Your task to perform on an android device: Clear the cart on amazon.com. Add bose soundsport free to the cart on amazon.com, then select checkout. Image 0: 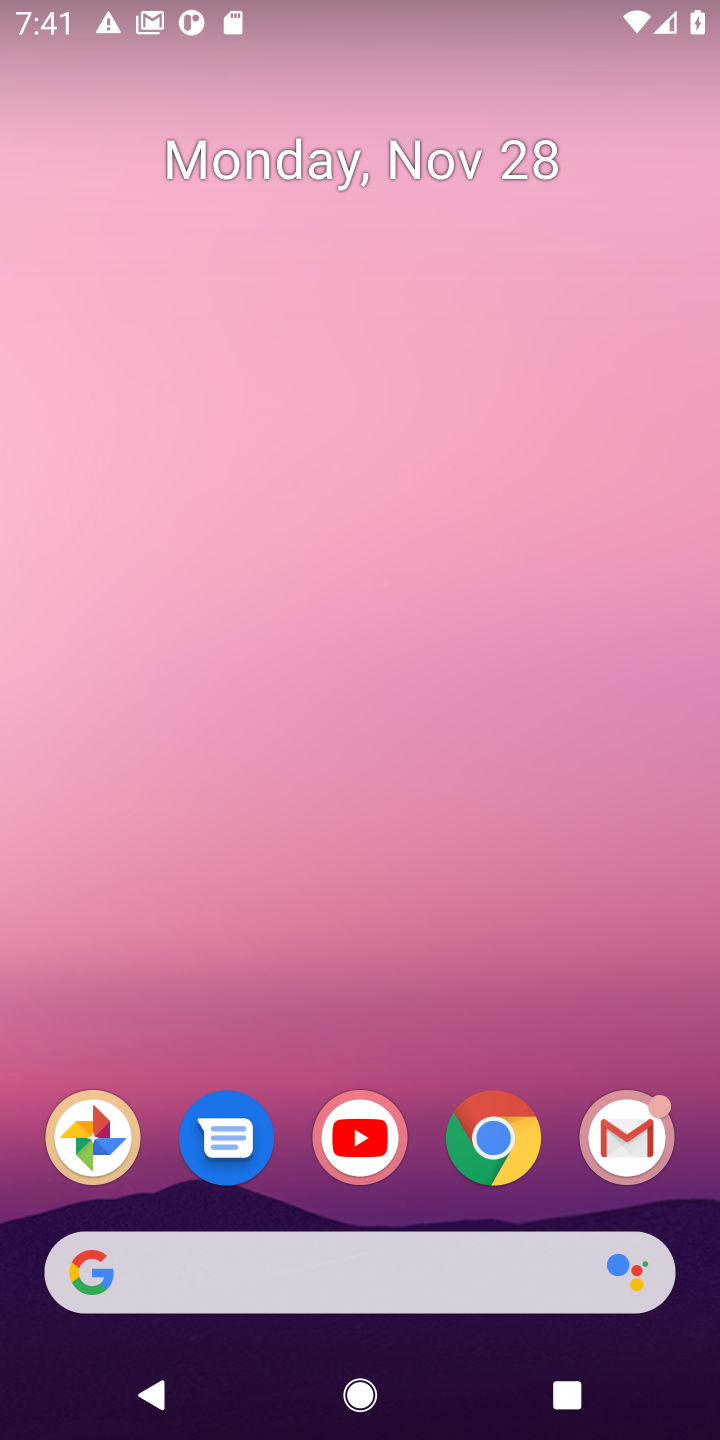
Step 0: click (494, 1148)
Your task to perform on an android device: Clear the cart on amazon.com. Add bose soundsport free to the cart on amazon.com, then select checkout. Image 1: 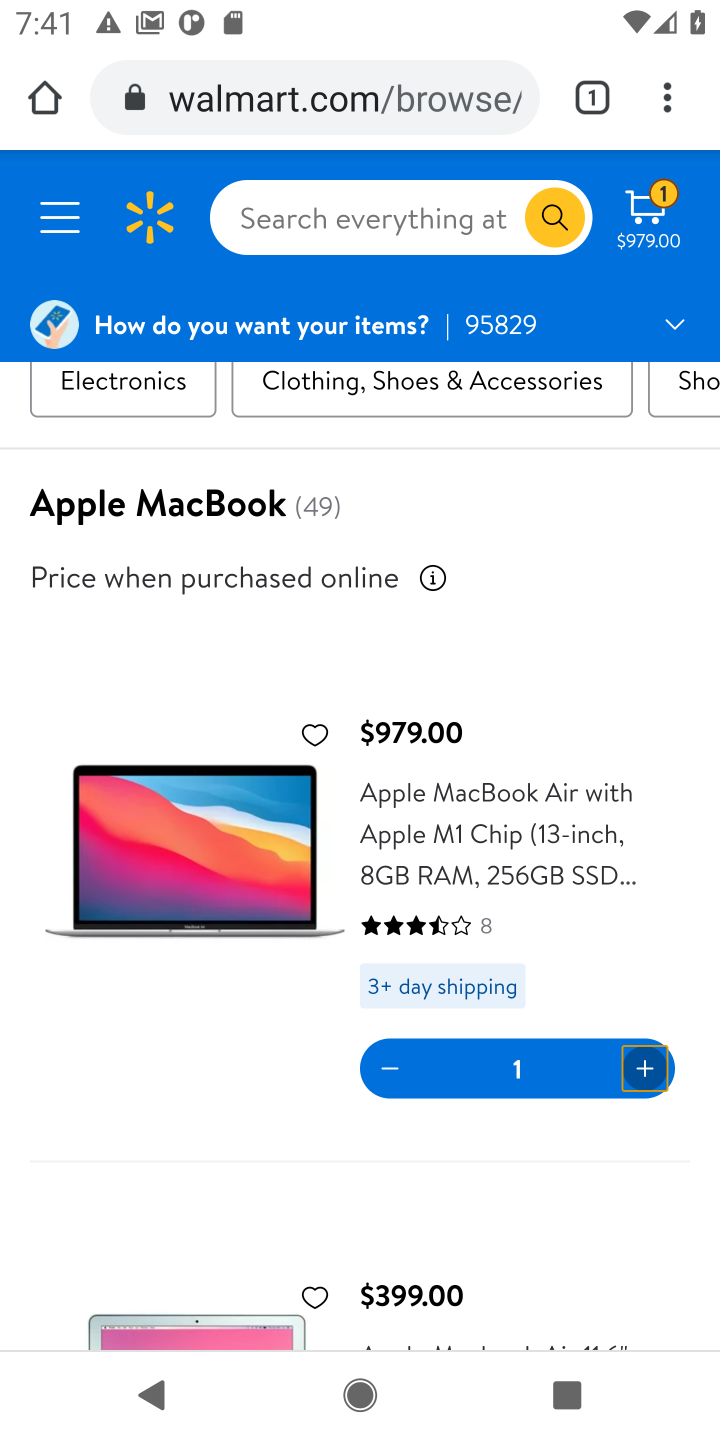
Step 1: click (317, 105)
Your task to perform on an android device: Clear the cart on amazon.com. Add bose soundsport free to the cart on amazon.com, then select checkout. Image 2: 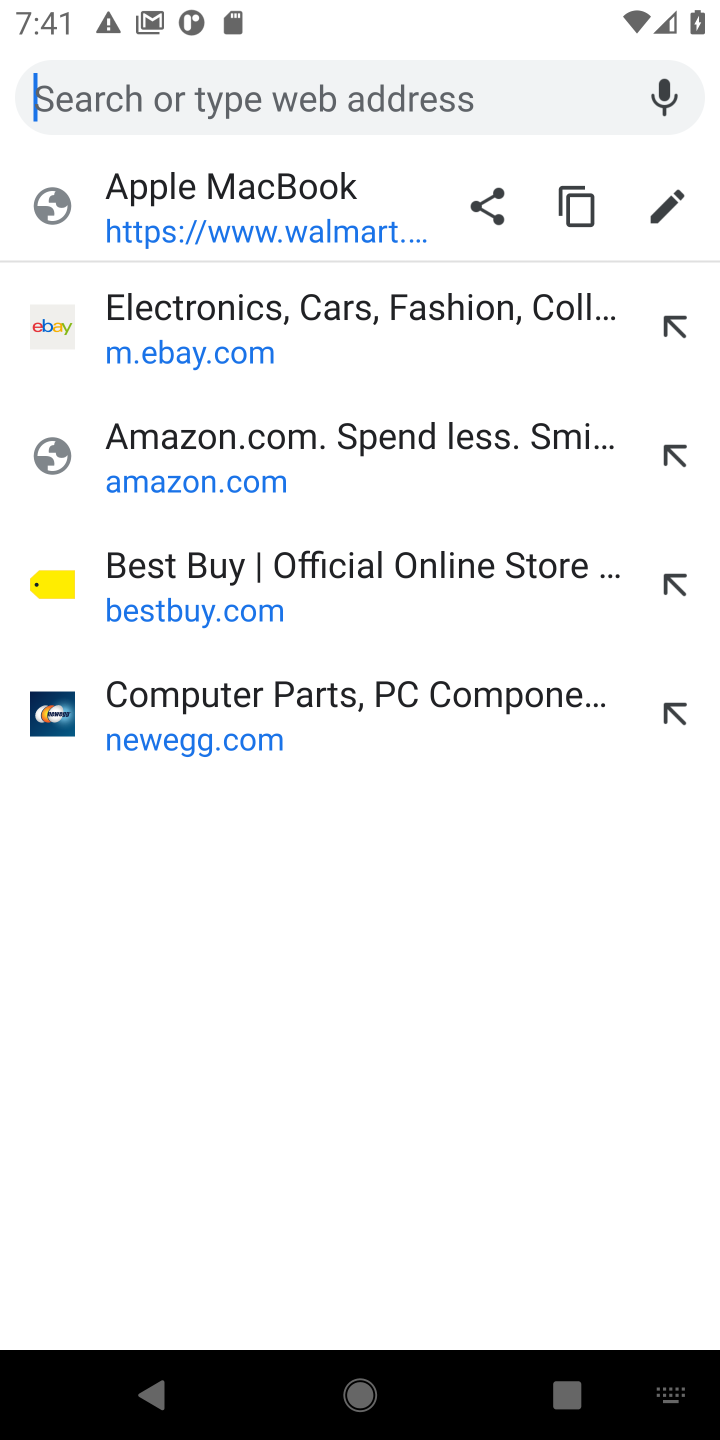
Step 2: click (173, 469)
Your task to perform on an android device: Clear the cart on amazon.com. Add bose soundsport free to the cart on amazon.com, then select checkout. Image 3: 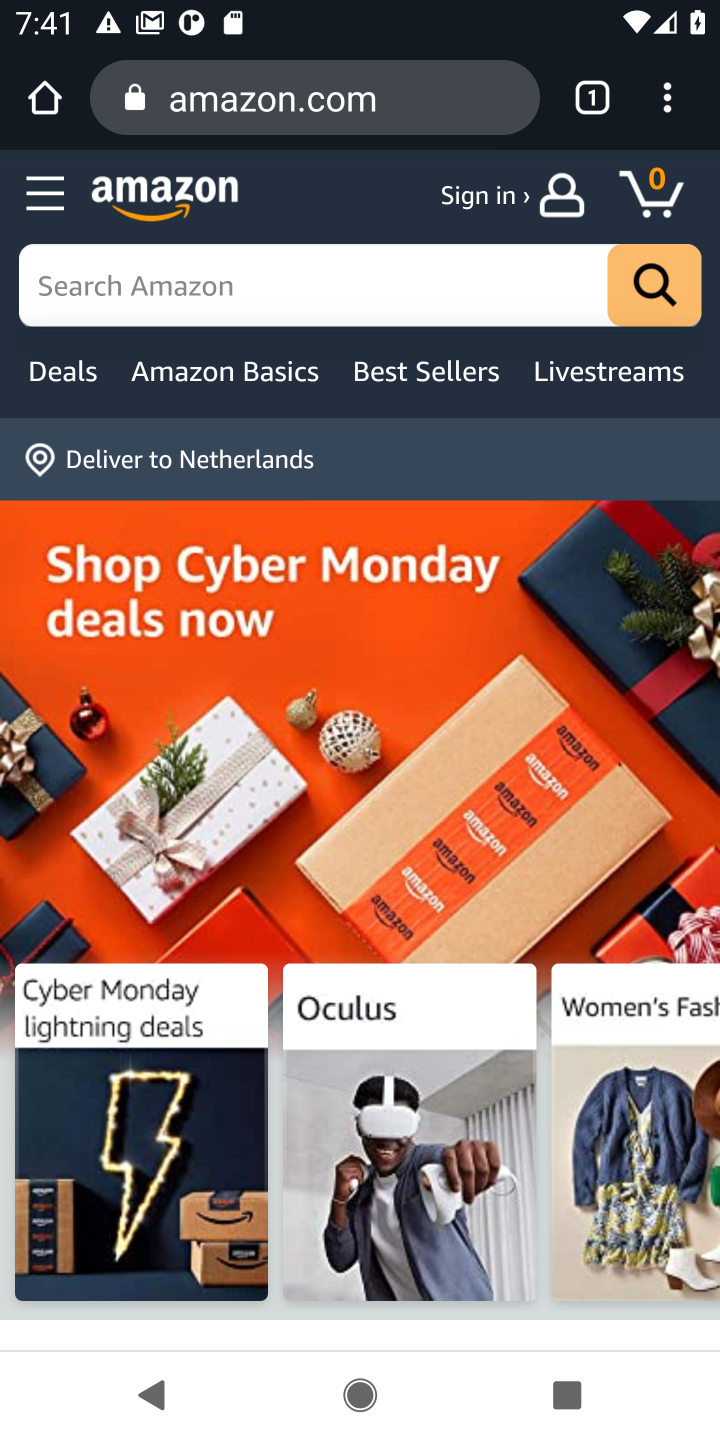
Step 3: click (648, 193)
Your task to perform on an android device: Clear the cart on amazon.com. Add bose soundsport free to the cart on amazon.com, then select checkout. Image 4: 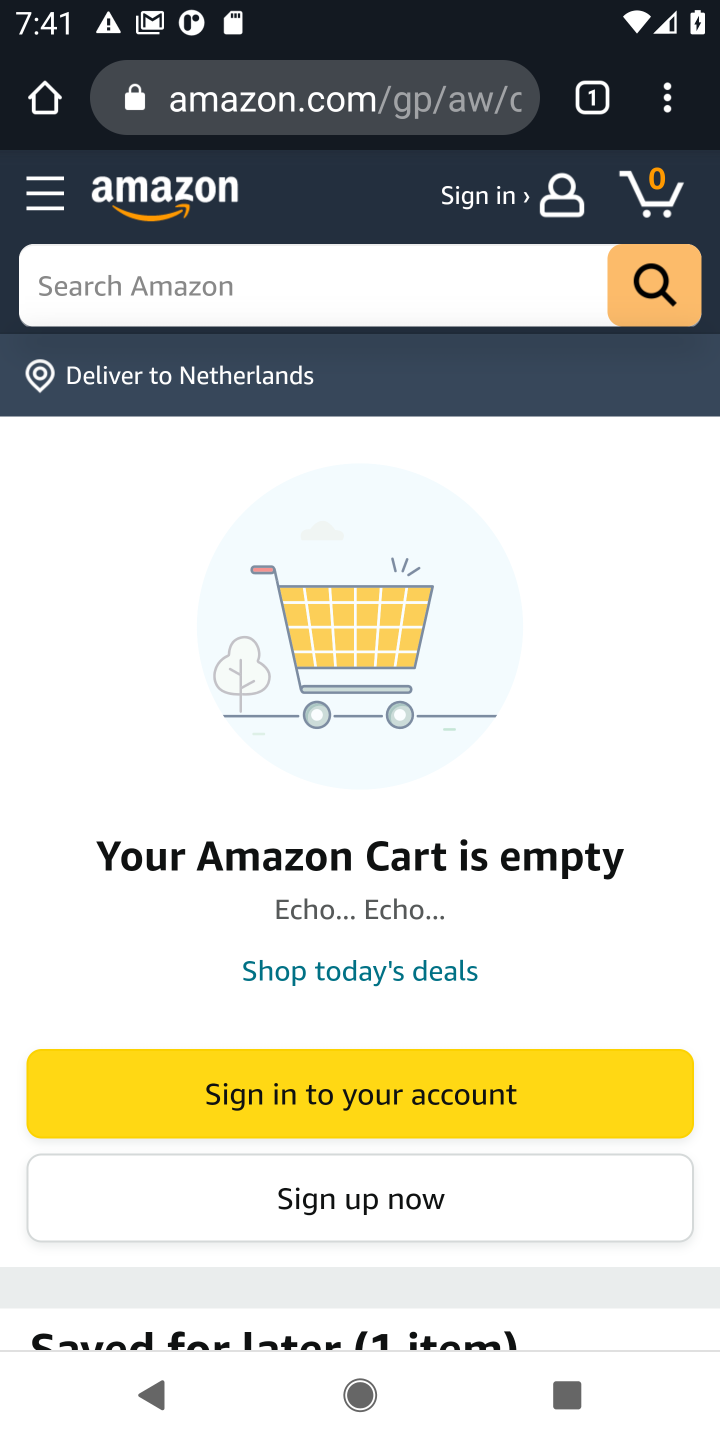
Step 4: click (111, 285)
Your task to perform on an android device: Clear the cart on amazon.com. Add bose soundsport free to the cart on amazon.com, then select checkout. Image 5: 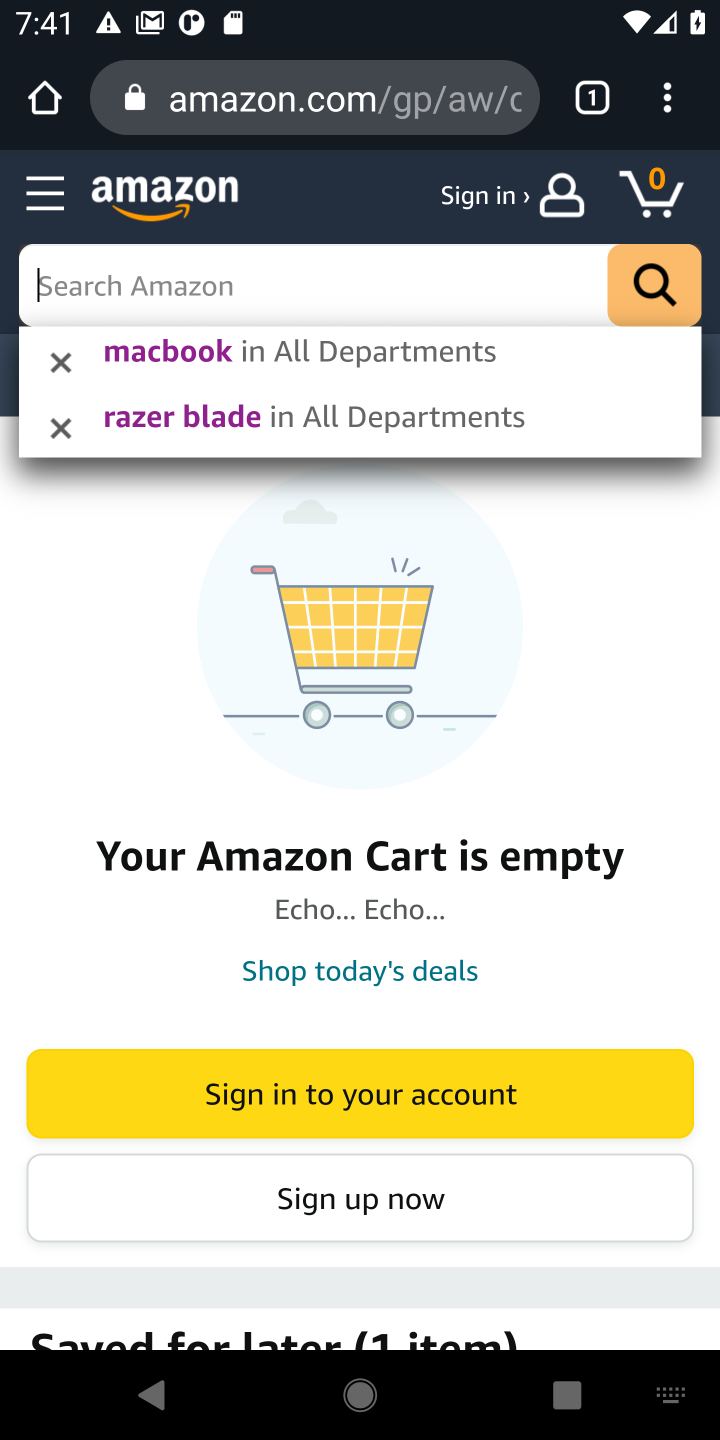
Step 5: type "bose soundsport free"
Your task to perform on an android device: Clear the cart on amazon.com. Add bose soundsport free to the cart on amazon.com, then select checkout. Image 6: 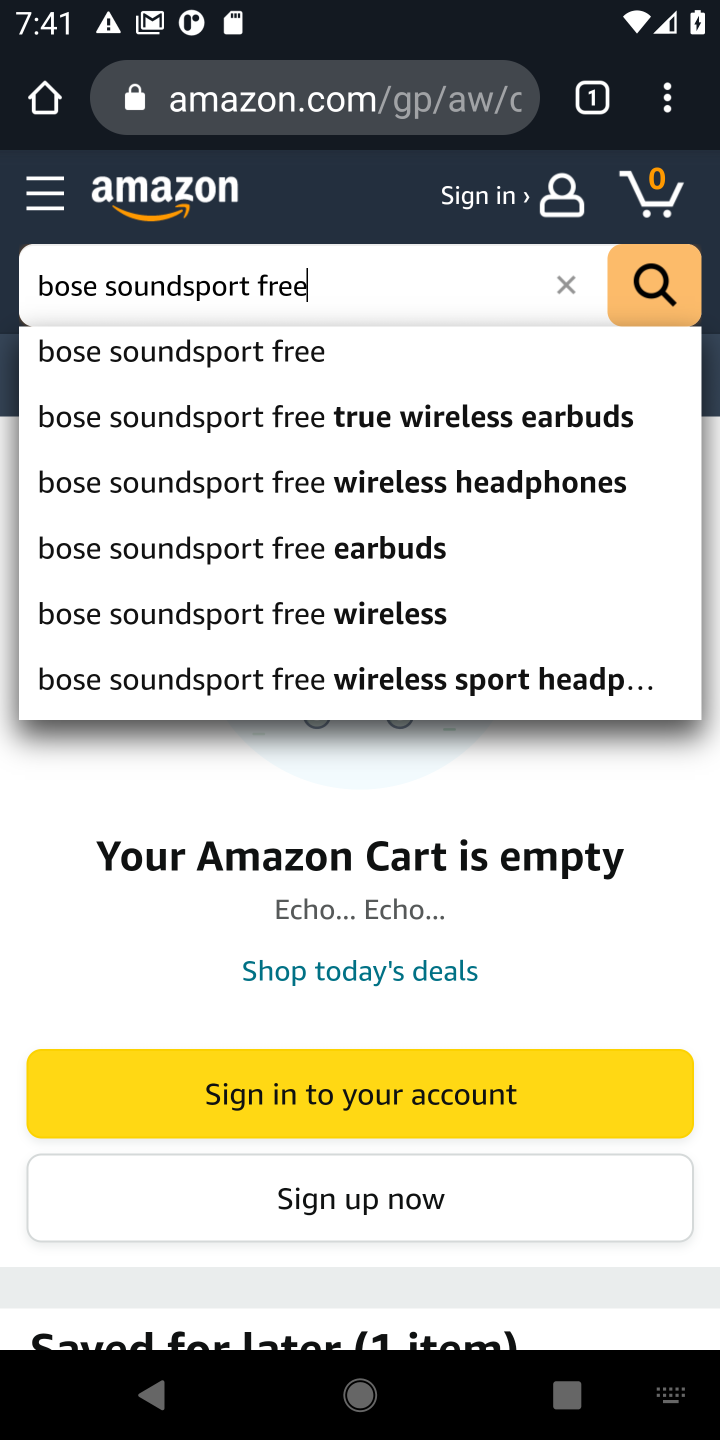
Step 6: click (190, 362)
Your task to perform on an android device: Clear the cart on amazon.com. Add bose soundsport free to the cart on amazon.com, then select checkout. Image 7: 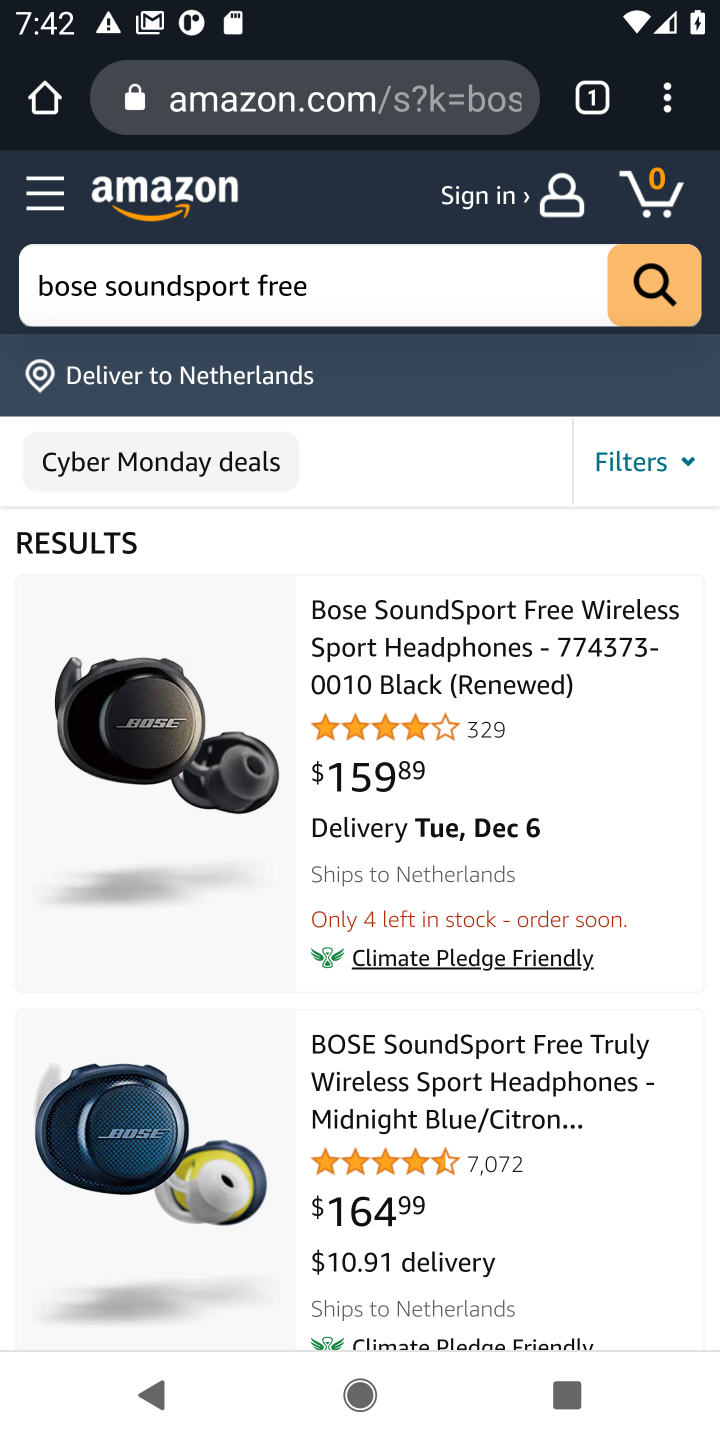
Step 7: click (429, 669)
Your task to perform on an android device: Clear the cart on amazon.com. Add bose soundsport free to the cart on amazon.com, then select checkout. Image 8: 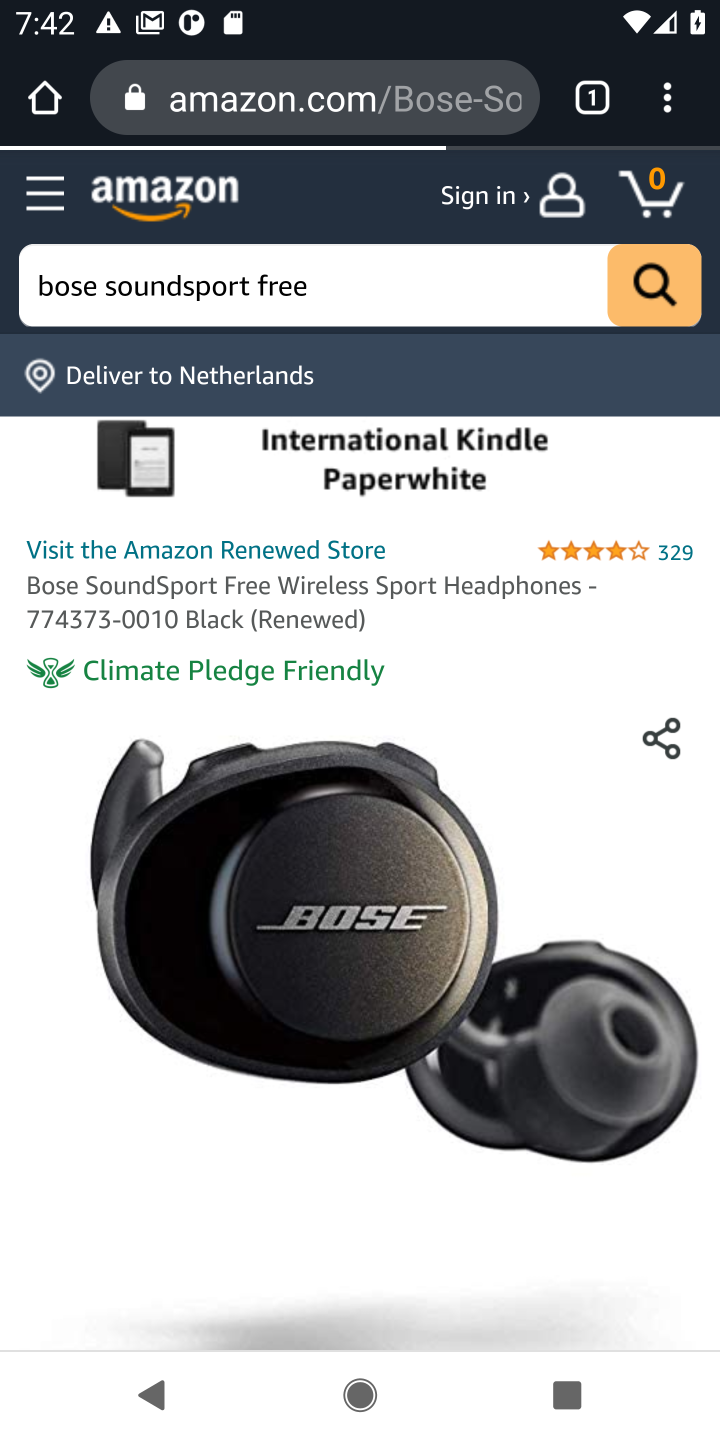
Step 8: drag from (344, 1074) to (345, 550)
Your task to perform on an android device: Clear the cart on amazon.com. Add bose soundsport free to the cart on amazon.com, then select checkout. Image 9: 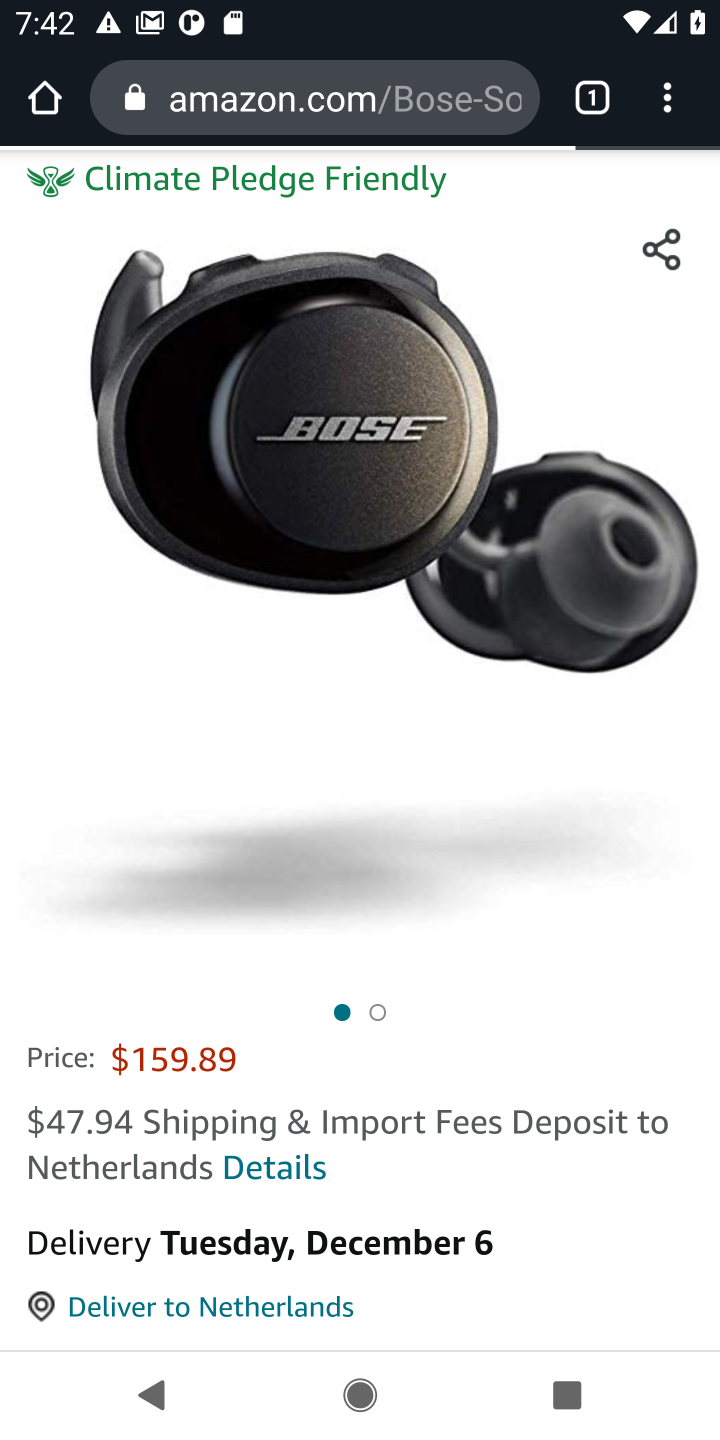
Step 9: drag from (347, 1129) to (374, 623)
Your task to perform on an android device: Clear the cart on amazon.com. Add bose soundsport free to the cart on amazon.com, then select checkout. Image 10: 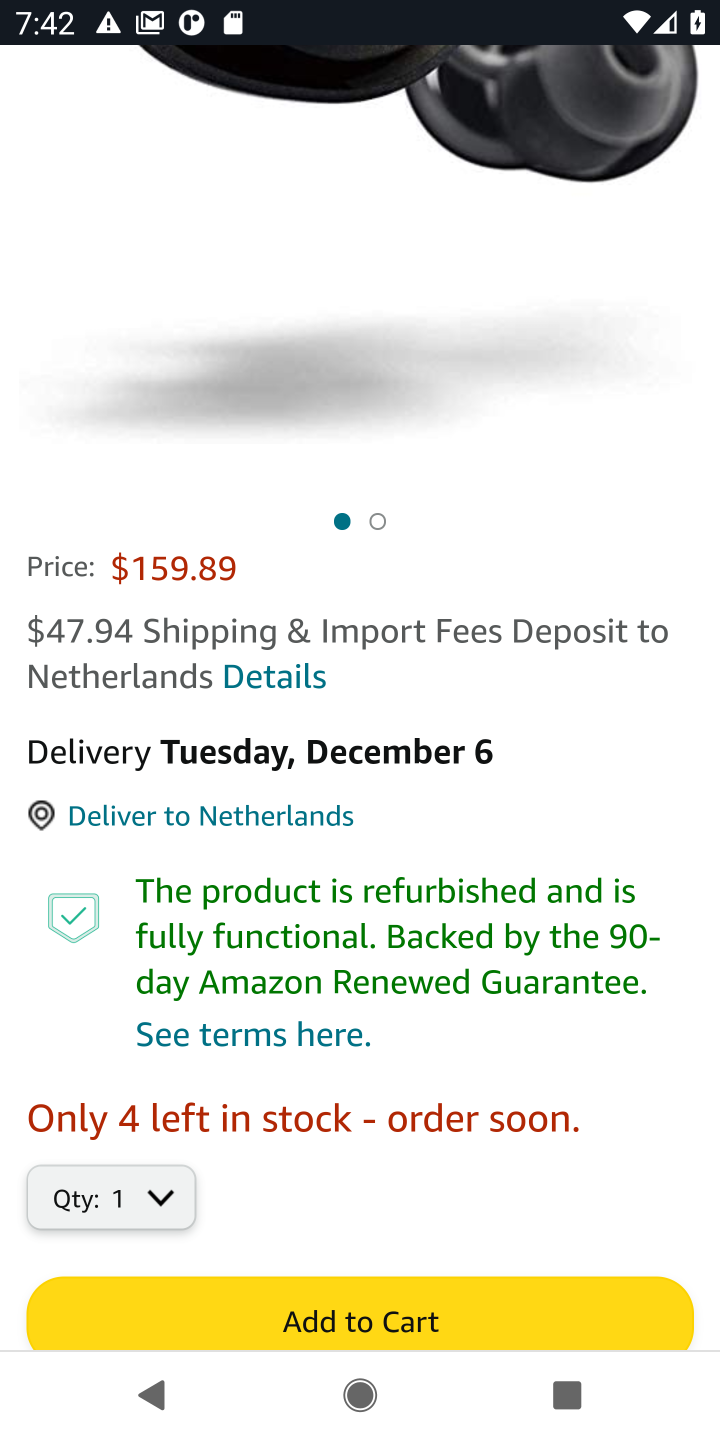
Step 10: click (326, 1295)
Your task to perform on an android device: Clear the cart on amazon.com. Add bose soundsport free to the cart on amazon.com, then select checkout. Image 11: 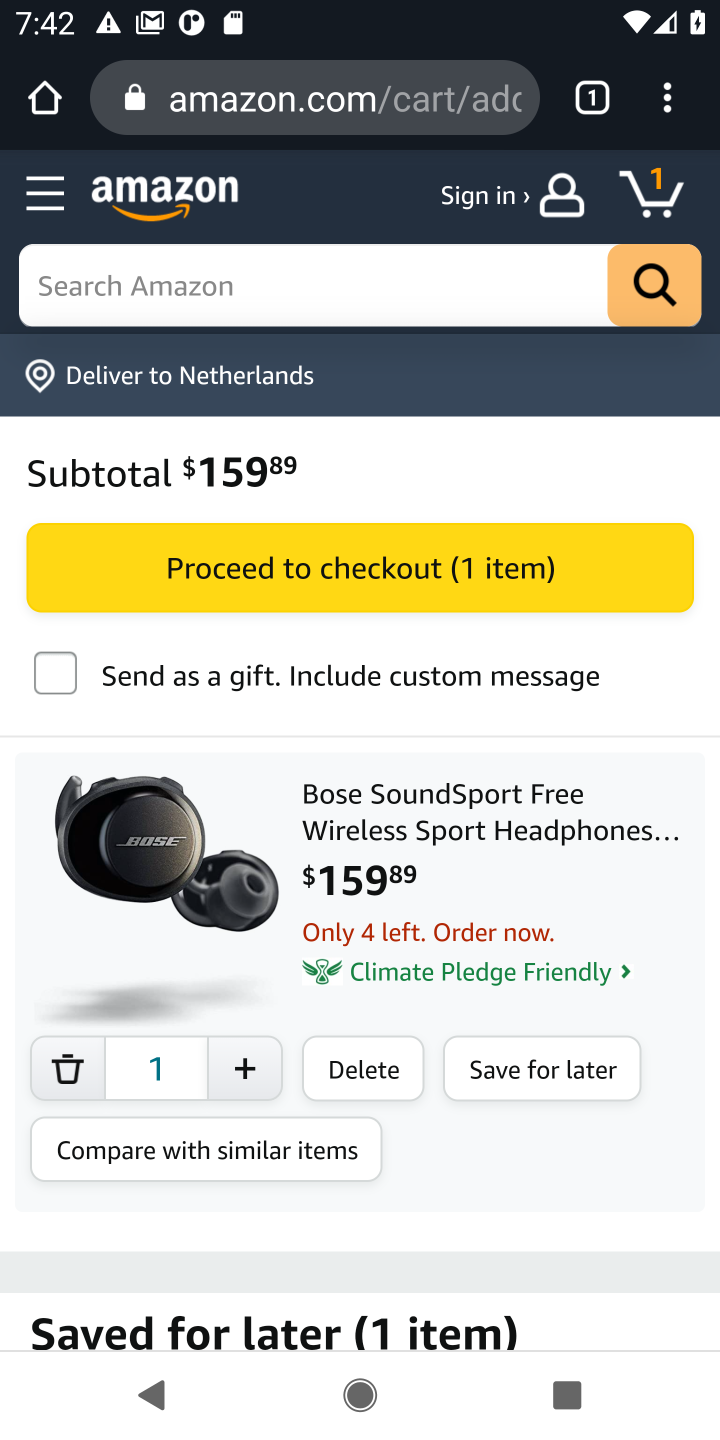
Step 11: click (306, 572)
Your task to perform on an android device: Clear the cart on amazon.com. Add bose soundsport free to the cart on amazon.com, then select checkout. Image 12: 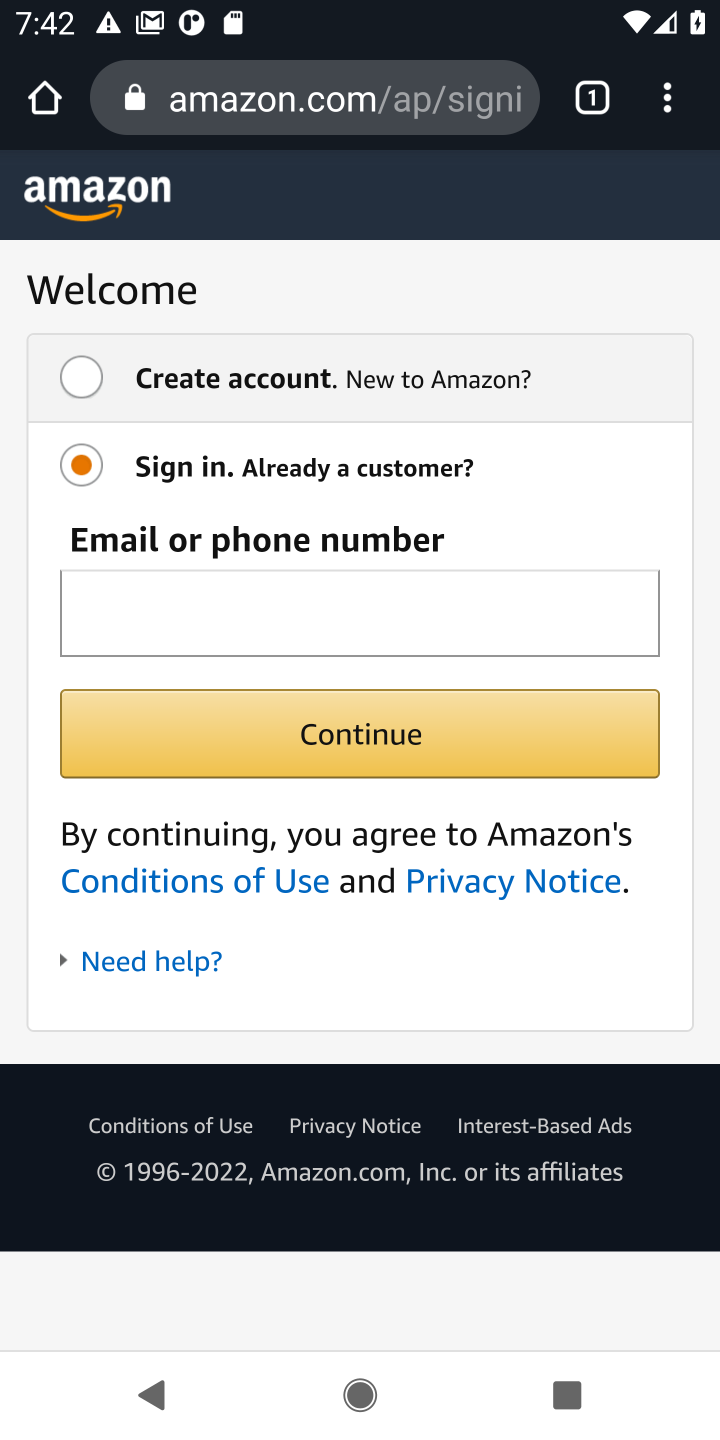
Step 12: task complete